Your task to perform on an android device: set an alarm Image 0: 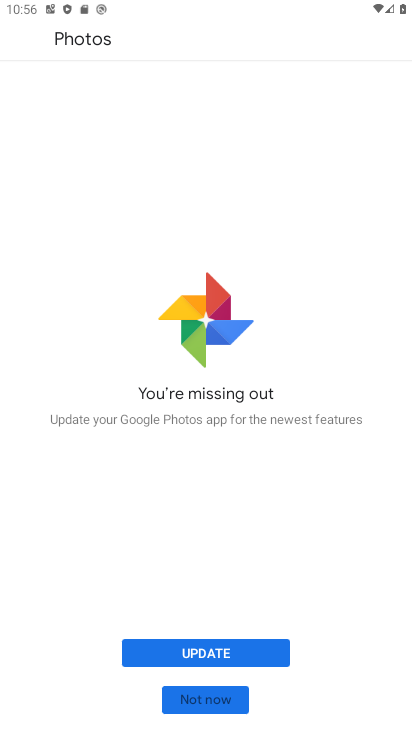
Step 0: press home button
Your task to perform on an android device: set an alarm Image 1: 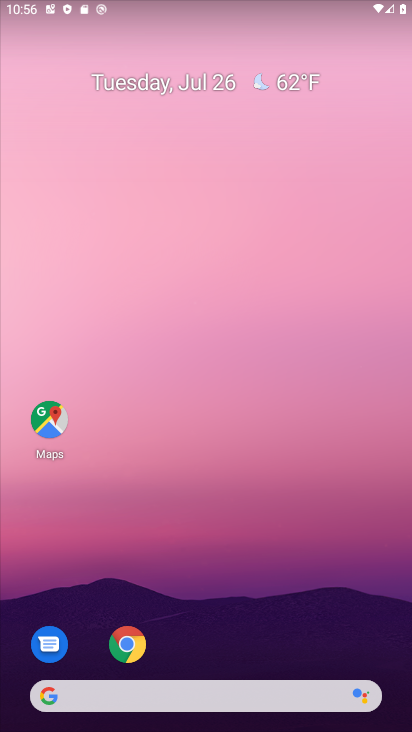
Step 1: drag from (352, 646) to (269, 171)
Your task to perform on an android device: set an alarm Image 2: 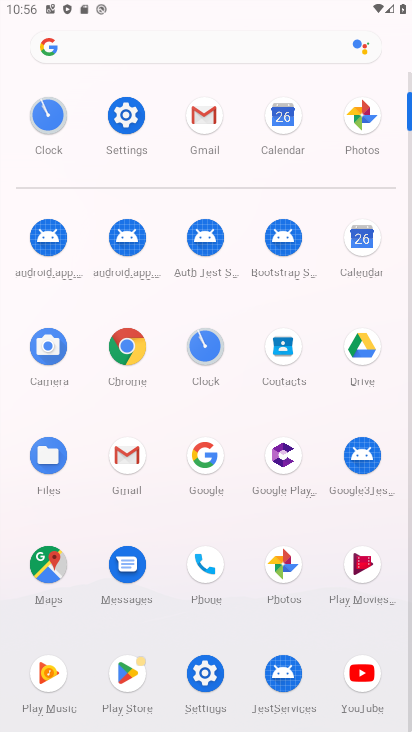
Step 2: click (53, 121)
Your task to perform on an android device: set an alarm Image 3: 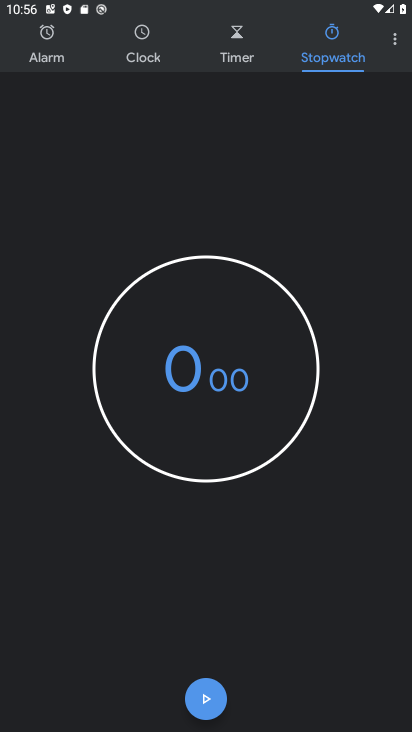
Step 3: click (50, 32)
Your task to perform on an android device: set an alarm Image 4: 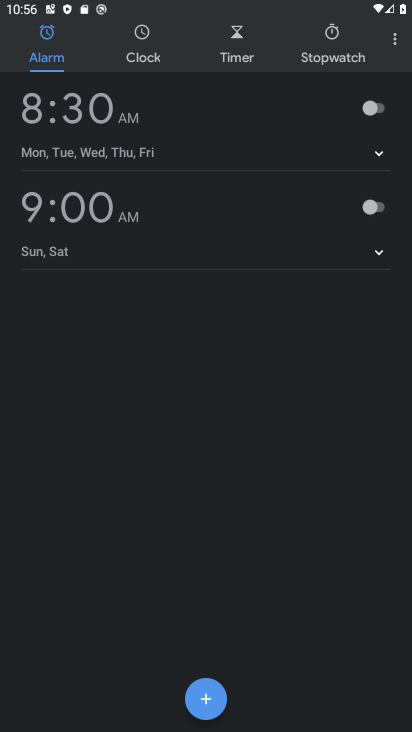
Step 4: click (382, 216)
Your task to perform on an android device: set an alarm Image 5: 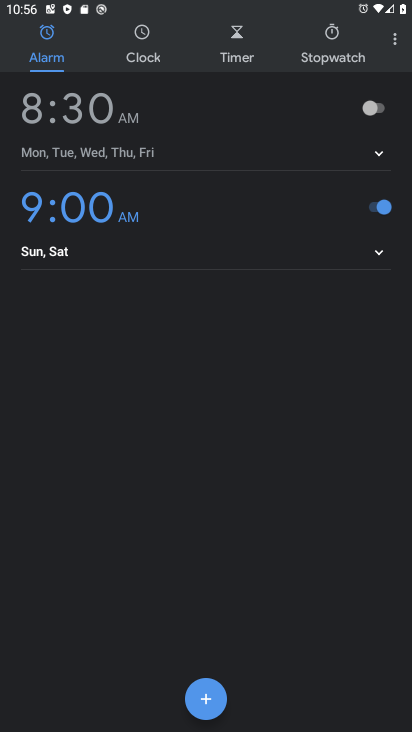
Step 5: task complete